Your task to perform on an android device: all mails in gmail Image 0: 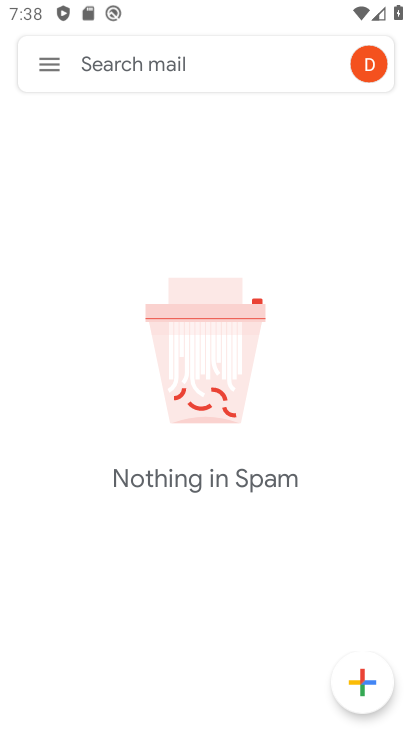
Step 0: click (50, 63)
Your task to perform on an android device: all mails in gmail Image 1: 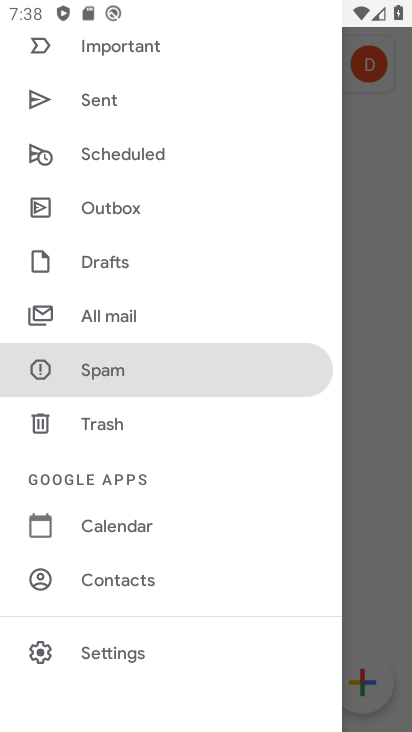
Step 1: click (101, 312)
Your task to perform on an android device: all mails in gmail Image 2: 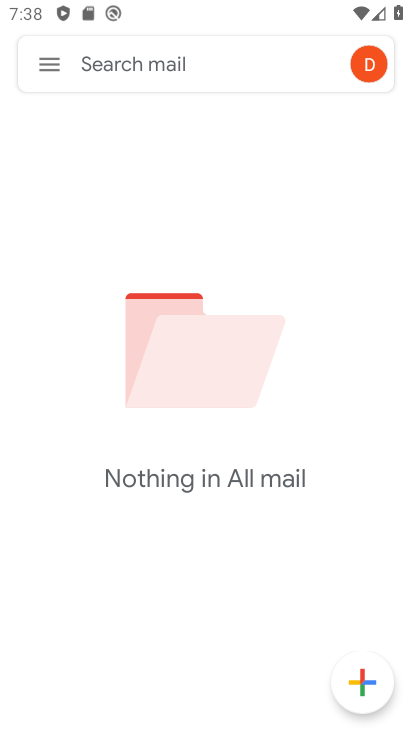
Step 2: task complete